Your task to perform on an android device: check out phone information Image 0: 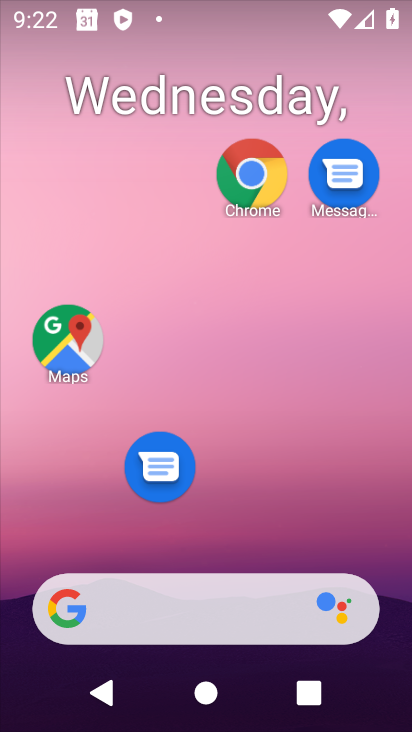
Step 0: drag from (402, 606) to (24, 46)
Your task to perform on an android device: check out phone information Image 1: 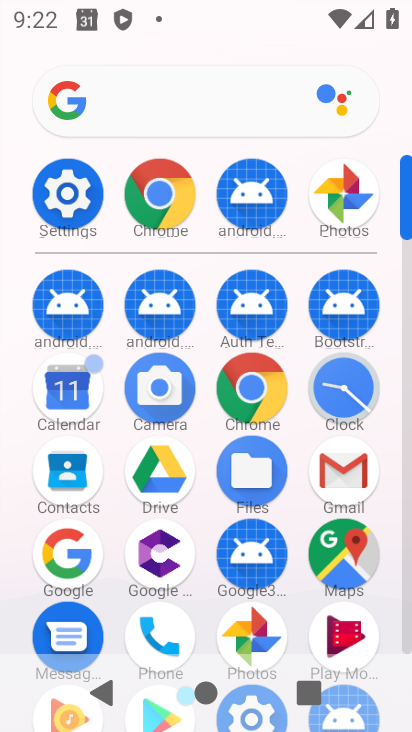
Step 1: drag from (266, 494) to (35, 128)
Your task to perform on an android device: check out phone information Image 2: 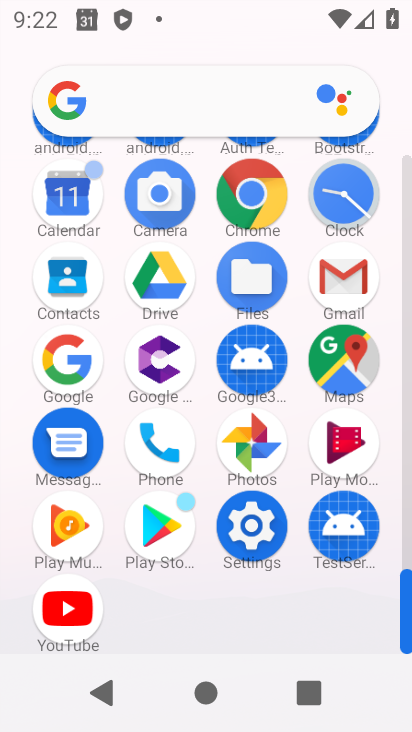
Step 2: click (146, 424)
Your task to perform on an android device: check out phone information Image 3: 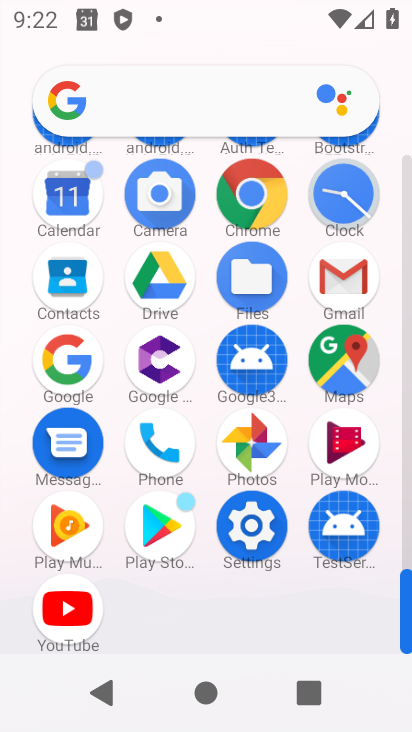
Step 3: click (146, 425)
Your task to perform on an android device: check out phone information Image 4: 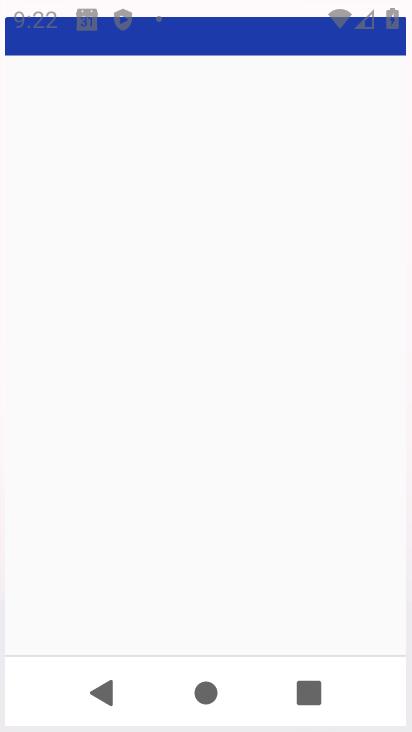
Step 4: click (147, 426)
Your task to perform on an android device: check out phone information Image 5: 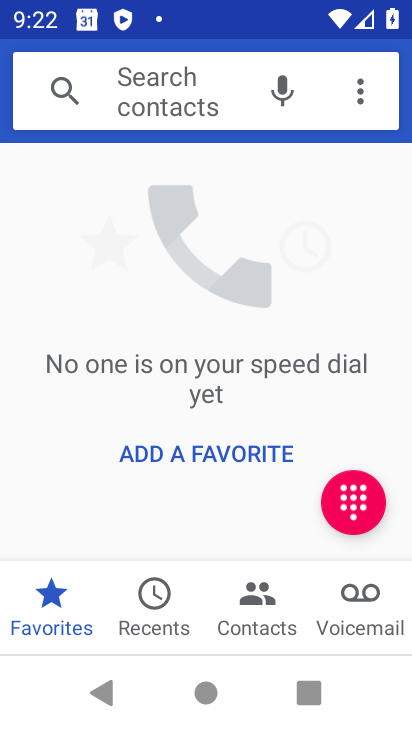
Step 5: press back button
Your task to perform on an android device: check out phone information Image 6: 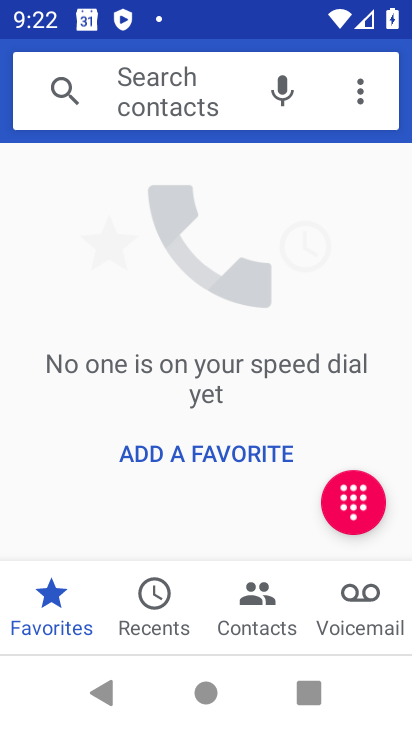
Step 6: press back button
Your task to perform on an android device: check out phone information Image 7: 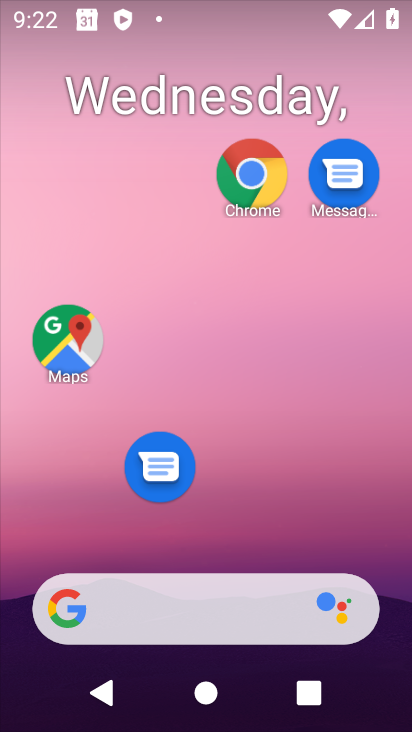
Step 7: drag from (354, 539) to (87, 96)
Your task to perform on an android device: check out phone information Image 8: 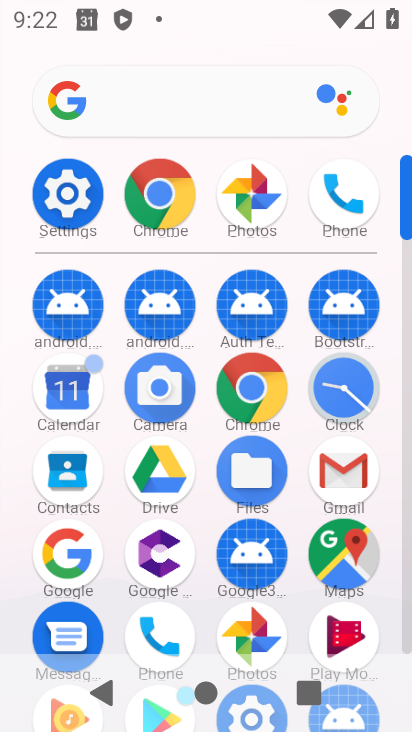
Step 8: click (76, 202)
Your task to perform on an android device: check out phone information Image 9: 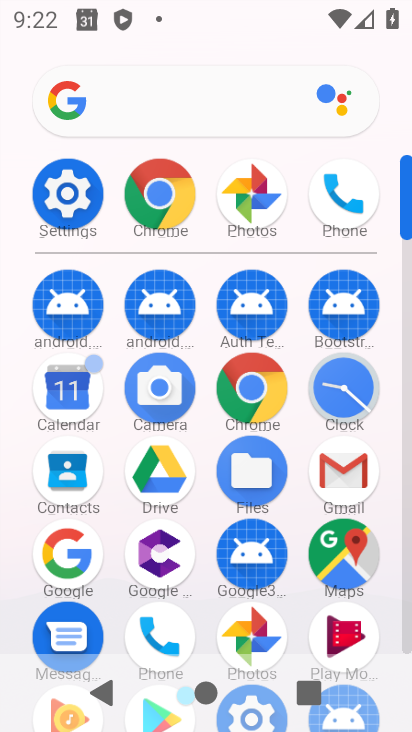
Step 9: click (76, 202)
Your task to perform on an android device: check out phone information Image 10: 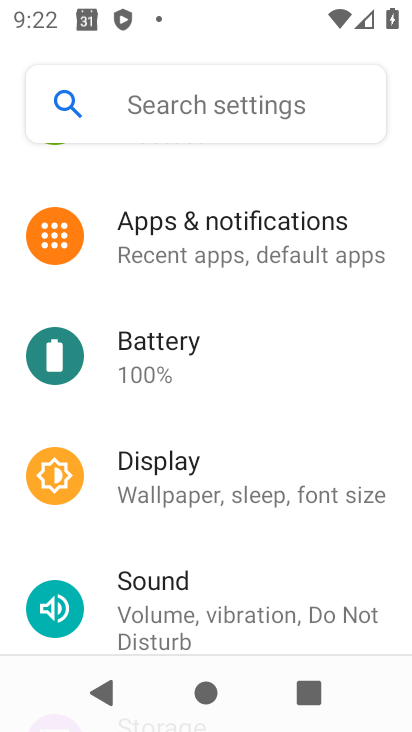
Step 10: click (76, 202)
Your task to perform on an android device: check out phone information Image 11: 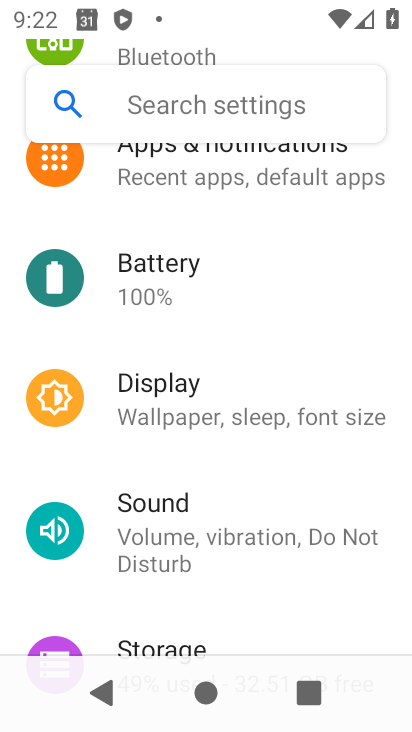
Step 11: click (76, 202)
Your task to perform on an android device: check out phone information Image 12: 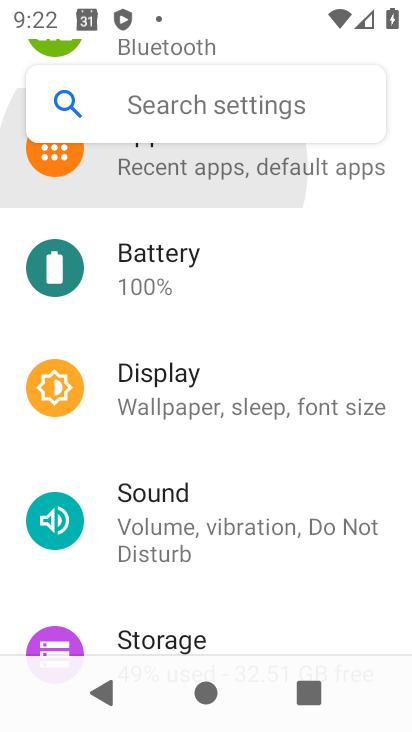
Step 12: click (75, 202)
Your task to perform on an android device: check out phone information Image 13: 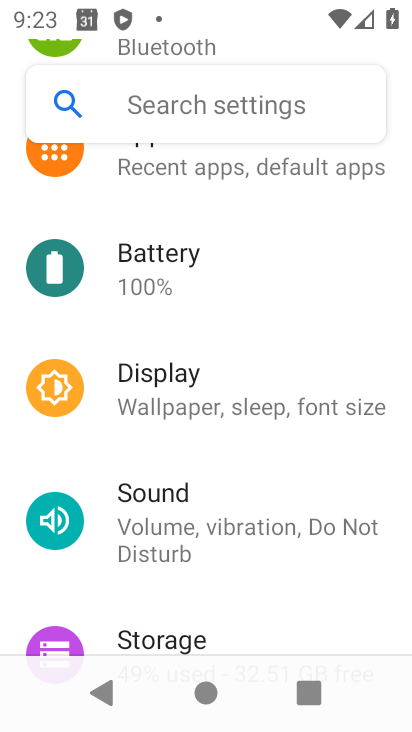
Step 13: drag from (245, 462) to (112, 22)
Your task to perform on an android device: check out phone information Image 14: 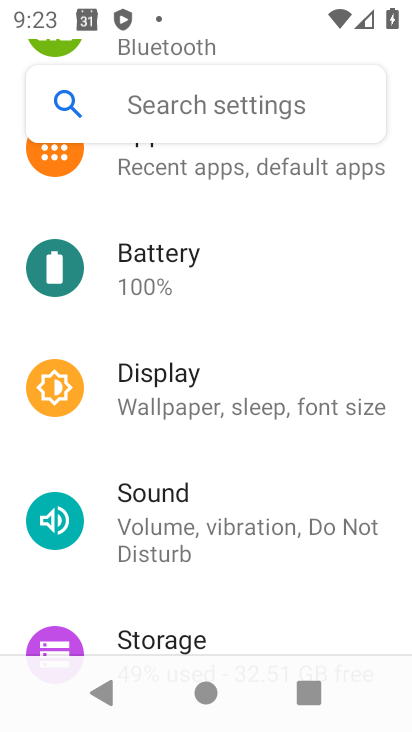
Step 14: drag from (124, 385) to (73, 198)
Your task to perform on an android device: check out phone information Image 15: 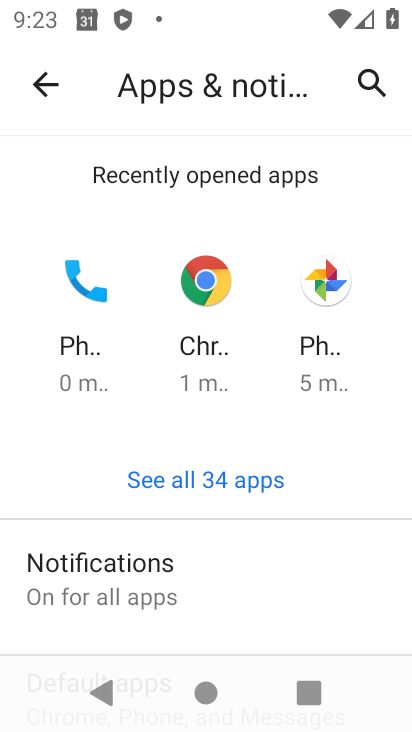
Step 15: drag from (129, 570) to (43, 166)
Your task to perform on an android device: check out phone information Image 16: 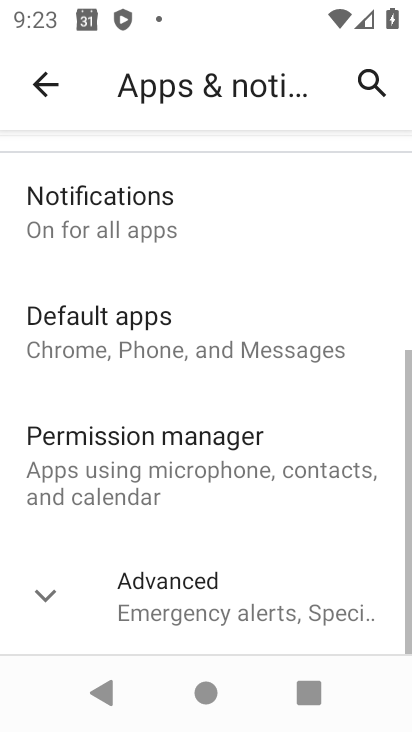
Step 16: drag from (203, 501) to (235, 121)
Your task to perform on an android device: check out phone information Image 17: 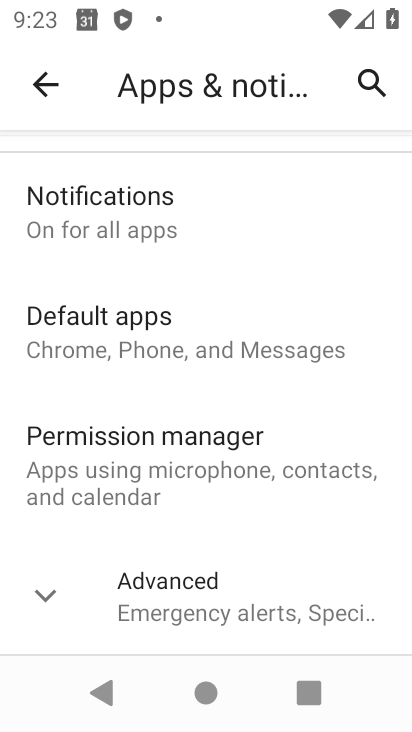
Step 17: click (89, 230)
Your task to perform on an android device: check out phone information Image 18: 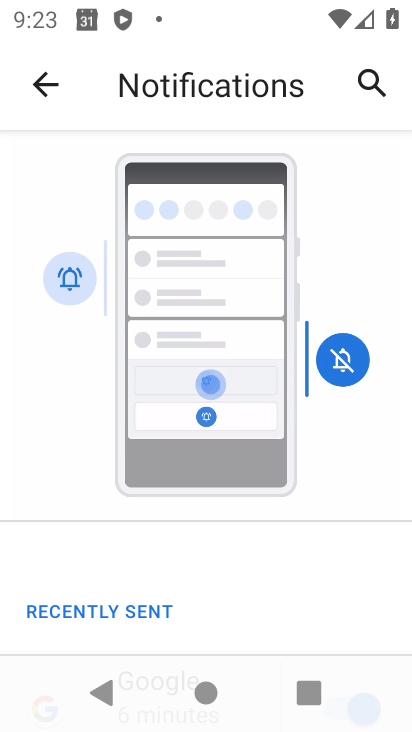
Step 18: drag from (211, 472) to (103, 91)
Your task to perform on an android device: check out phone information Image 19: 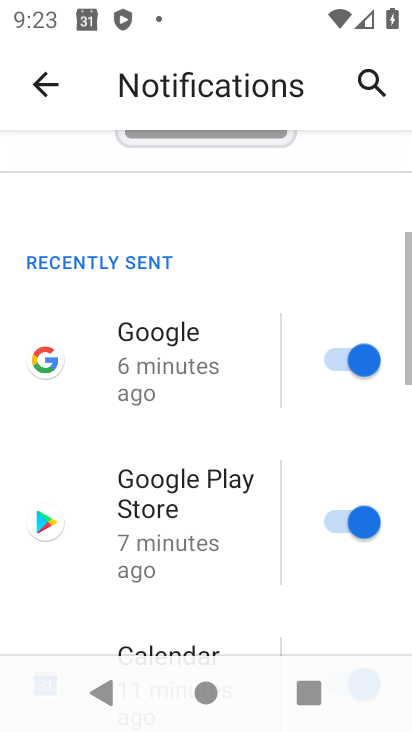
Step 19: drag from (173, 470) to (187, 78)
Your task to perform on an android device: check out phone information Image 20: 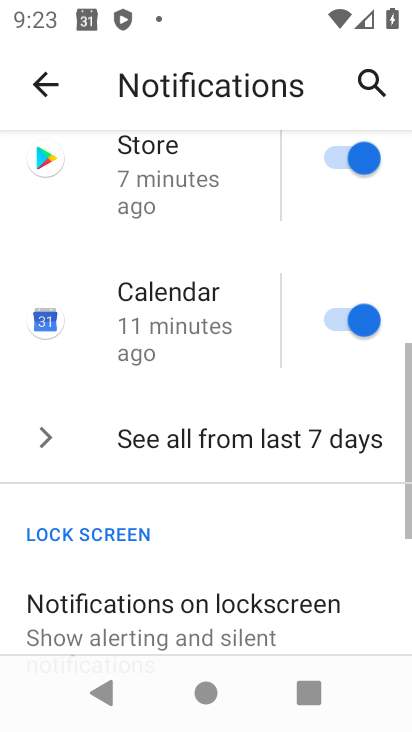
Step 20: drag from (243, 458) to (247, 172)
Your task to perform on an android device: check out phone information Image 21: 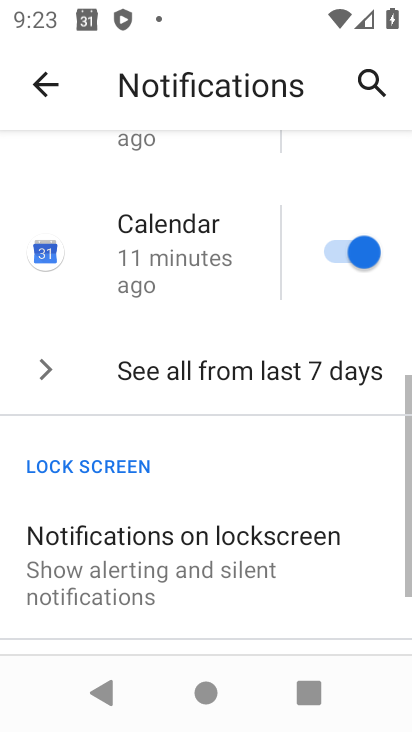
Step 21: drag from (213, 496) to (137, 248)
Your task to perform on an android device: check out phone information Image 22: 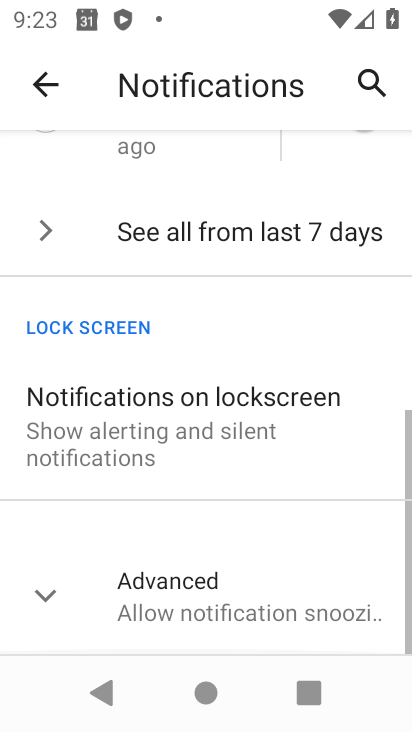
Step 22: drag from (208, 500) to (132, 188)
Your task to perform on an android device: check out phone information Image 23: 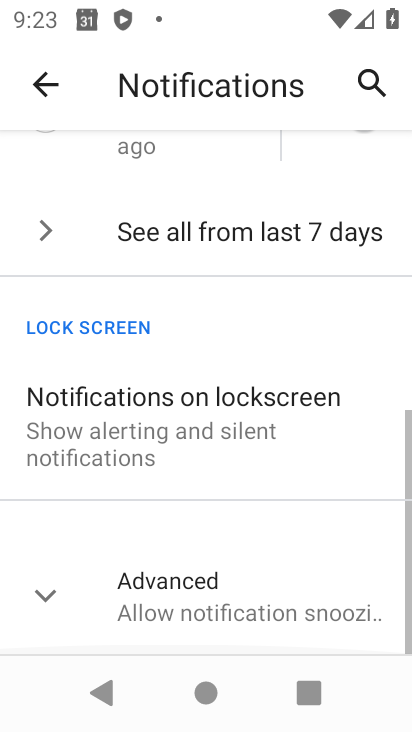
Step 23: drag from (165, 443) to (165, 94)
Your task to perform on an android device: check out phone information Image 24: 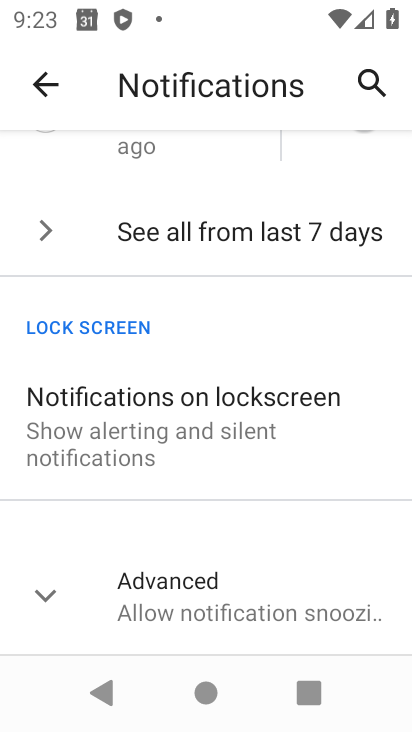
Step 24: click (187, 605)
Your task to perform on an android device: check out phone information Image 25: 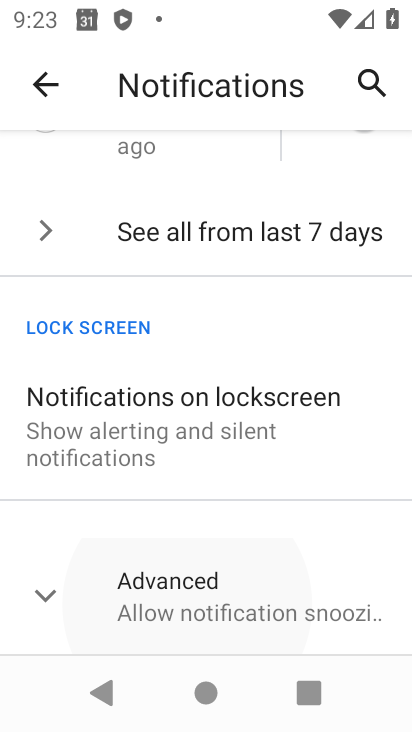
Step 25: click (187, 604)
Your task to perform on an android device: check out phone information Image 26: 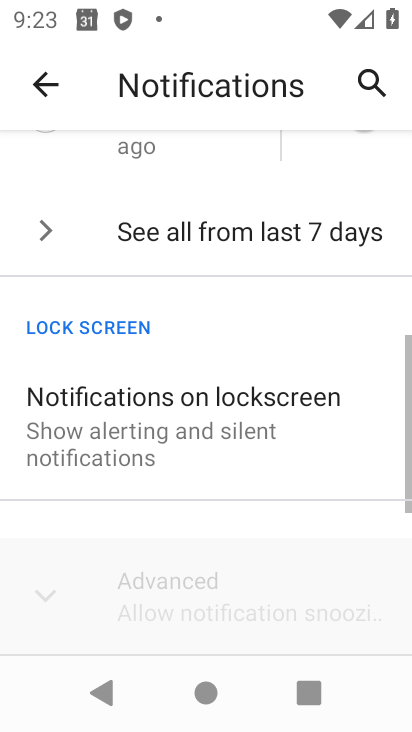
Step 26: click (186, 602)
Your task to perform on an android device: check out phone information Image 27: 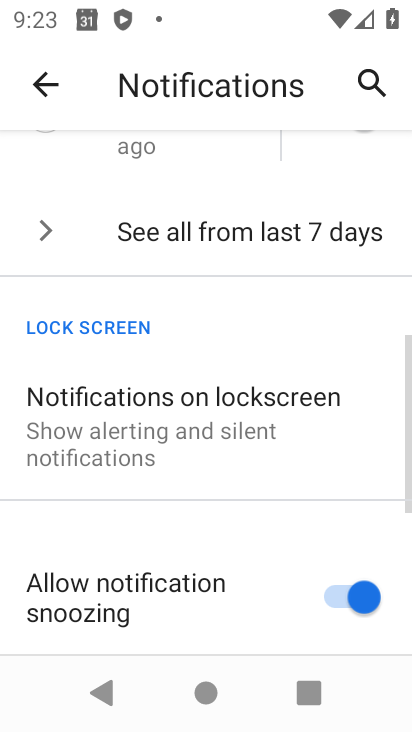
Step 27: drag from (175, 479) to (186, 305)
Your task to perform on an android device: check out phone information Image 28: 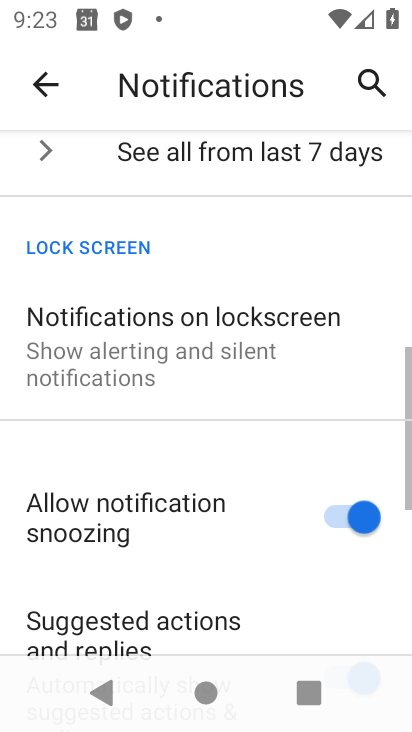
Step 28: drag from (280, 549) to (253, 236)
Your task to perform on an android device: check out phone information Image 29: 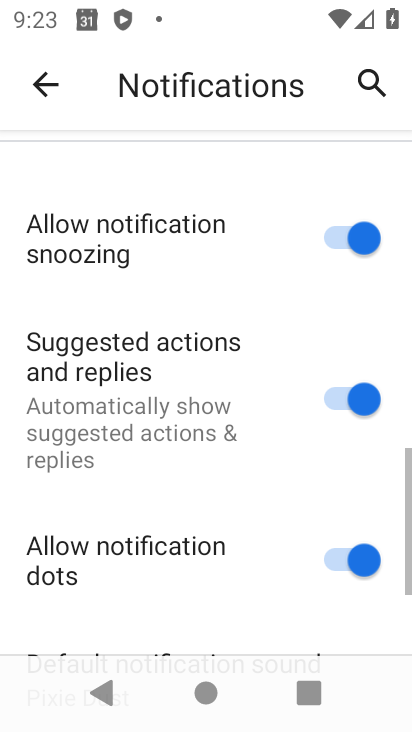
Step 29: drag from (221, 591) to (85, 143)
Your task to perform on an android device: check out phone information Image 30: 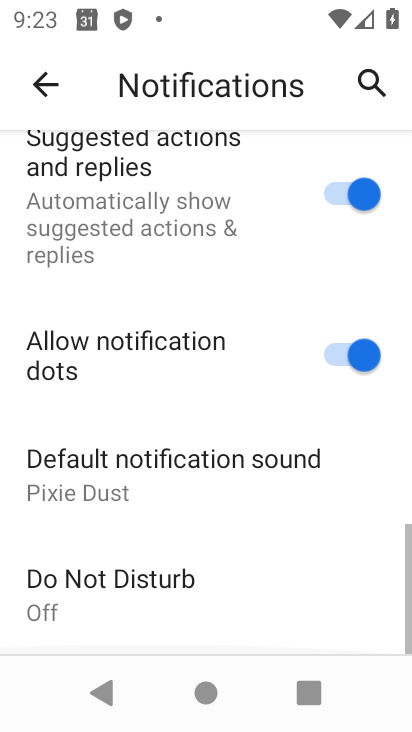
Step 30: drag from (111, 316) to (95, 158)
Your task to perform on an android device: check out phone information Image 31: 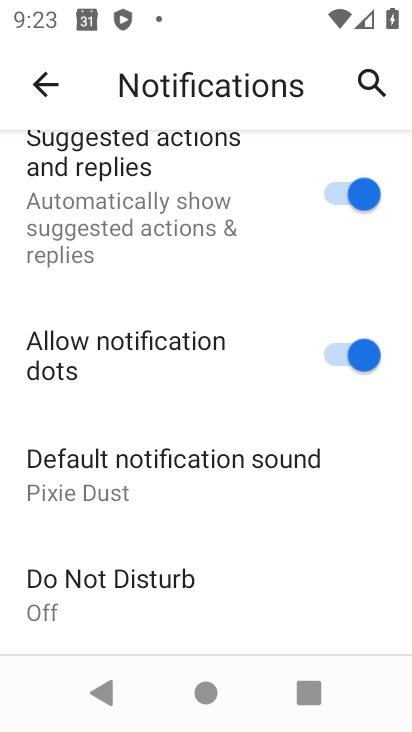
Step 31: drag from (178, 378) to (178, 39)
Your task to perform on an android device: check out phone information Image 32: 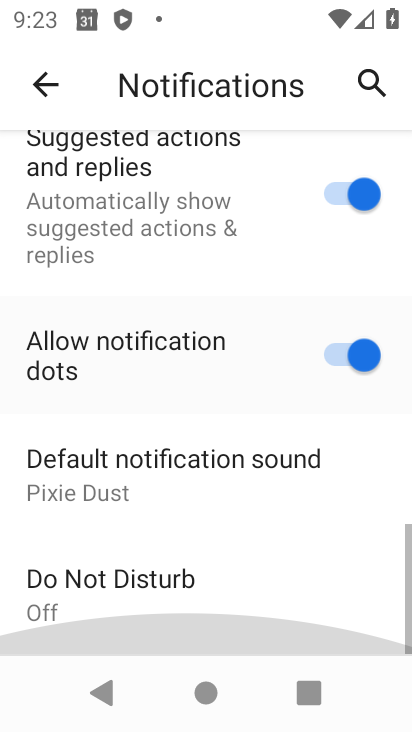
Step 32: drag from (177, 487) to (208, 224)
Your task to perform on an android device: check out phone information Image 33: 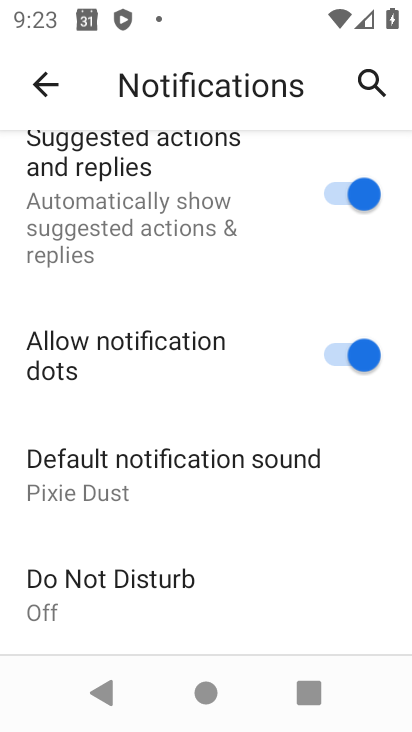
Step 33: click (47, 84)
Your task to perform on an android device: check out phone information Image 34: 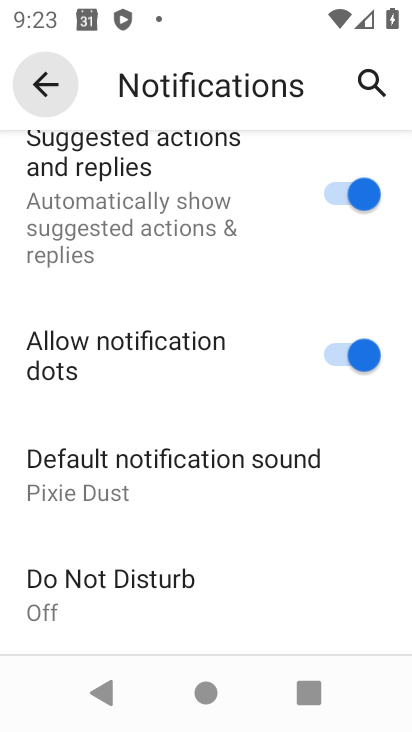
Step 34: click (47, 84)
Your task to perform on an android device: check out phone information Image 35: 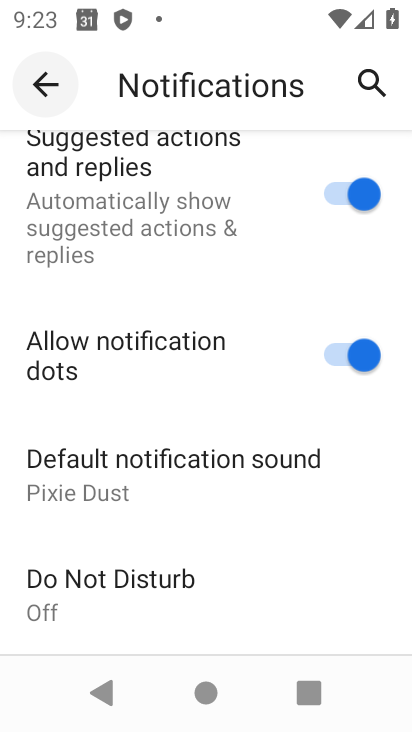
Step 35: click (47, 82)
Your task to perform on an android device: check out phone information Image 36: 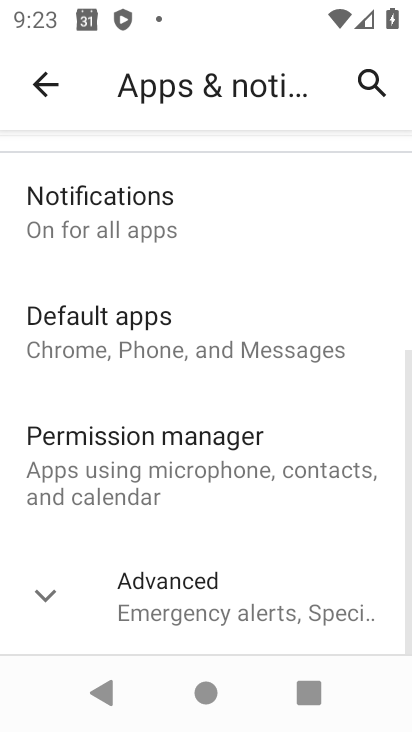
Step 36: click (42, 76)
Your task to perform on an android device: check out phone information Image 37: 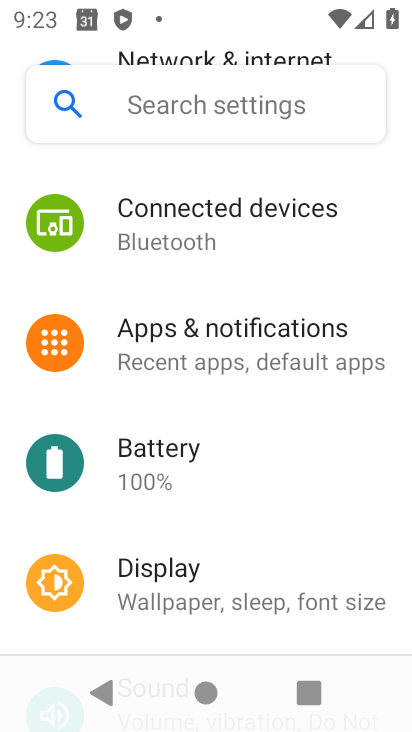
Step 37: drag from (209, 479) to (192, 203)
Your task to perform on an android device: check out phone information Image 38: 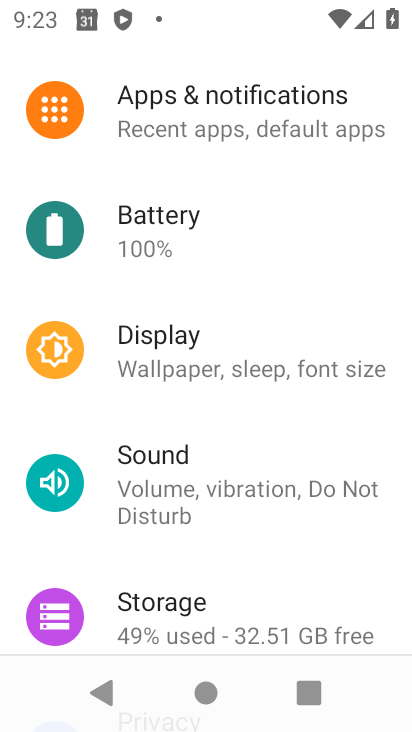
Step 38: drag from (229, 445) to (187, 158)
Your task to perform on an android device: check out phone information Image 39: 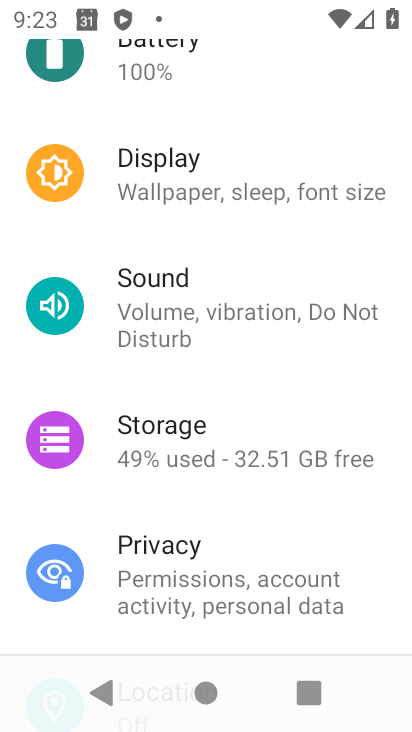
Step 39: drag from (229, 593) to (186, 132)
Your task to perform on an android device: check out phone information Image 40: 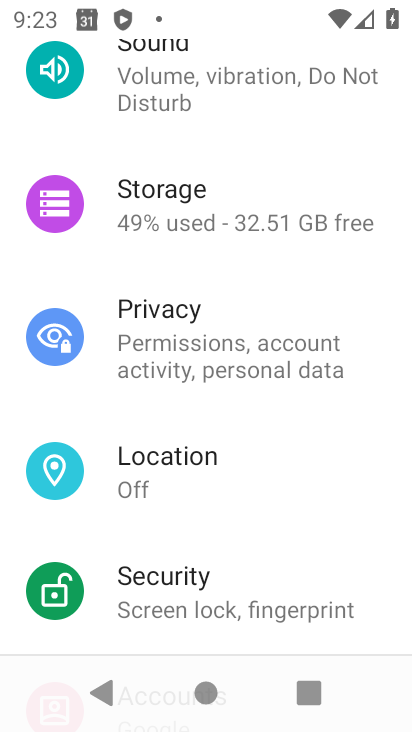
Step 40: drag from (181, 557) to (147, 147)
Your task to perform on an android device: check out phone information Image 41: 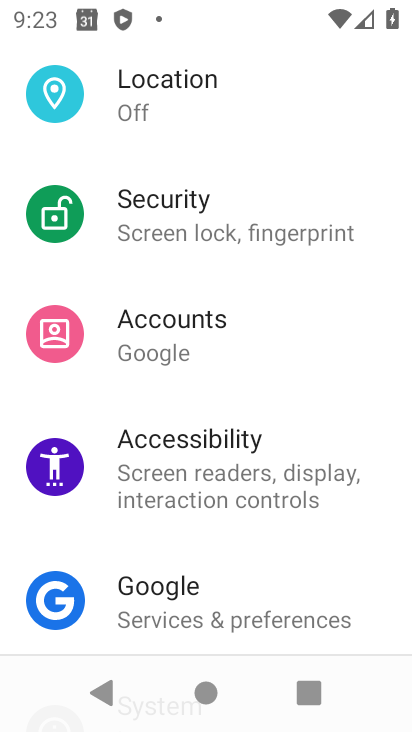
Step 41: drag from (200, 332) to (189, 19)
Your task to perform on an android device: check out phone information Image 42: 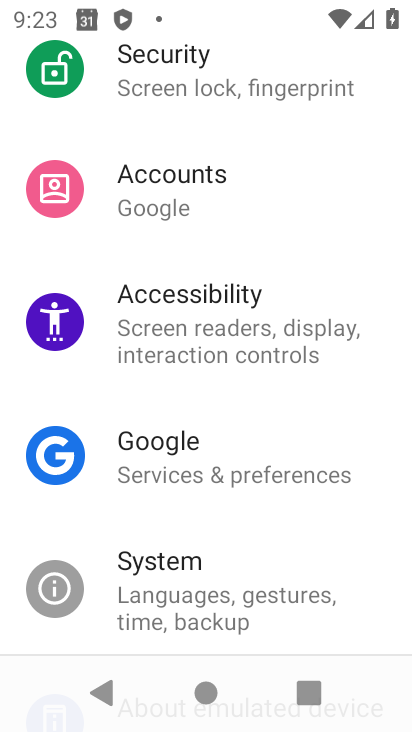
Step 42: drag from (170, 559) to (110, 92)
Your task to perform on an android device: check out phone information Image 43: 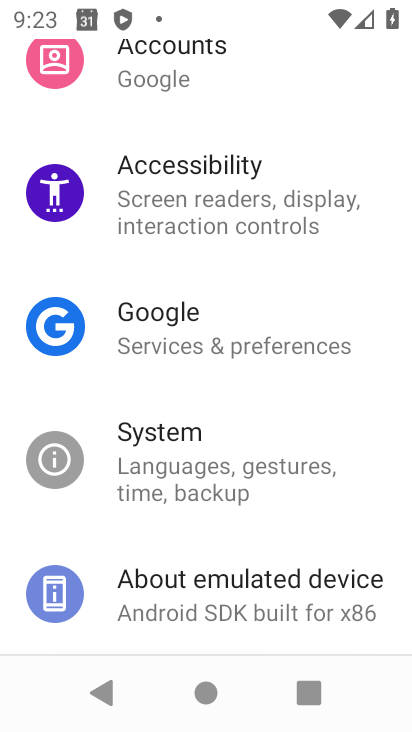
Step 43: drag from (167, 565) to (153, 329)
Your task to perform on an android device: check out phone information Image 44: 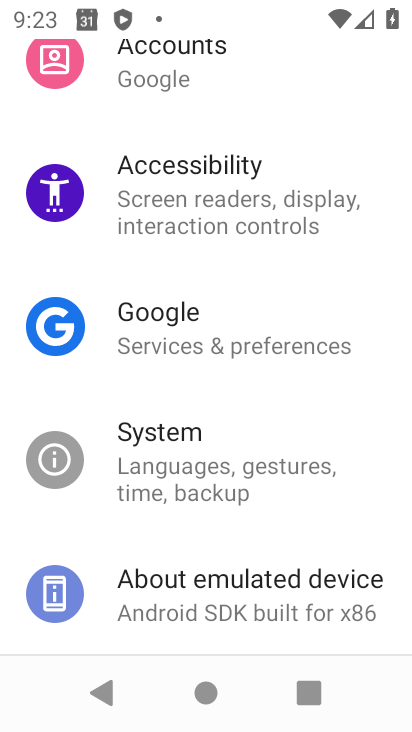
Step 44: click (207, 597)
Your task to perform on an android device: check out phone information Image 45: 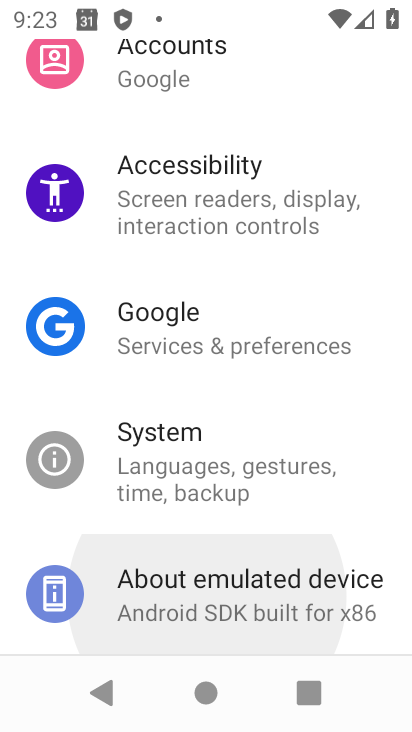
Step 45: click (207, 597)
Your task to perform on an android device: check out phone information Image 46: 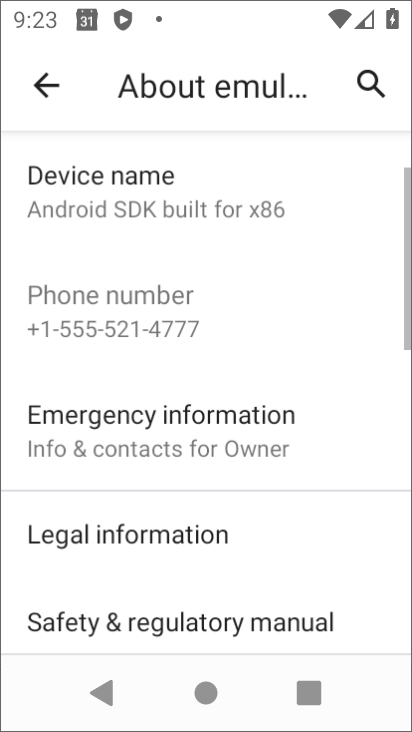
Step 46: click (208, 596)
Your task to perform on an android device: check out phone information Image 47: 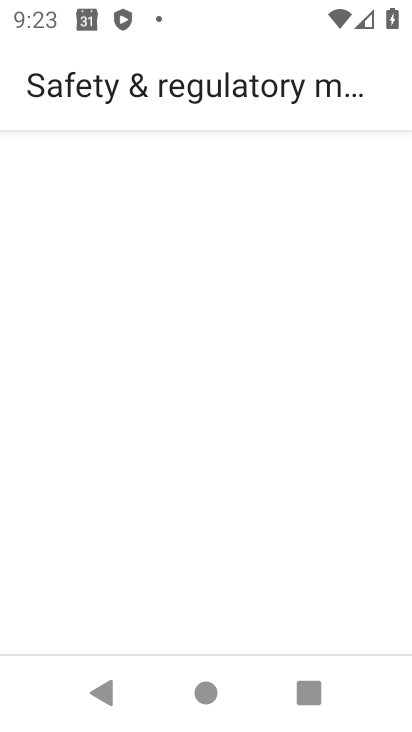
Step 47: task complete